Your task to perform on an android device: Go to CNN.com Image 0: 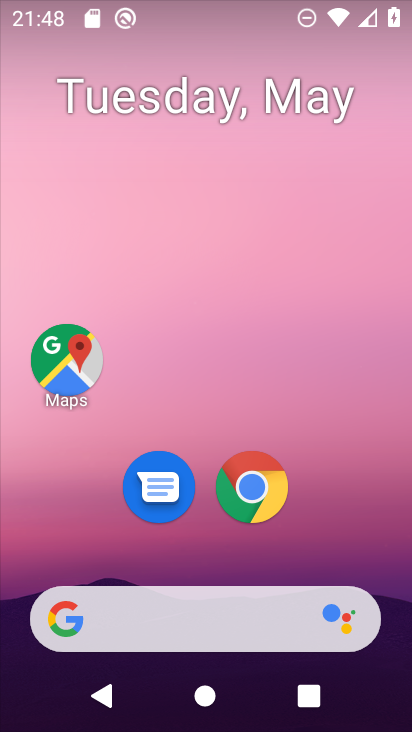
Step 0: press home button
Your task to perform on an android device: Go to CNN.com Image 1: 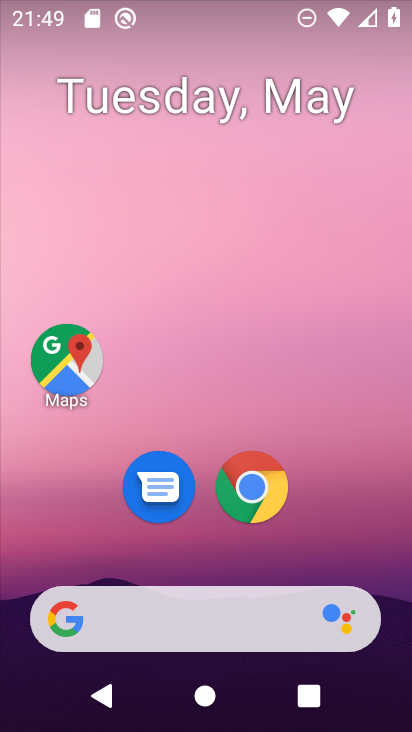
Step 1: click (245, 489)
Your task to perform on an android device: Go to CNN.com Image 2: 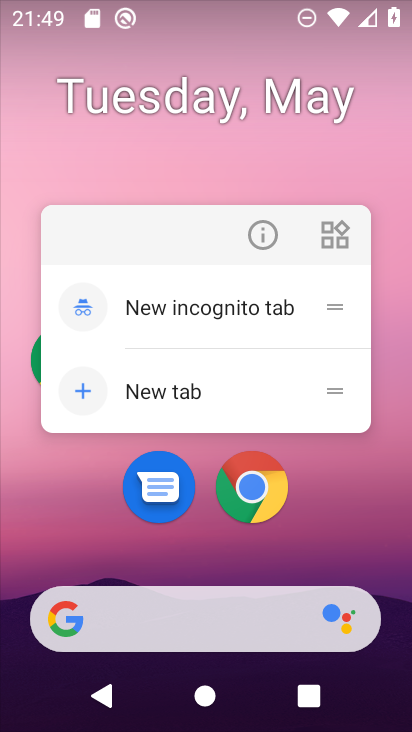
Step 2: click (265, 500)
Your task to perform on an android device: Go to CNN.com Image 3: 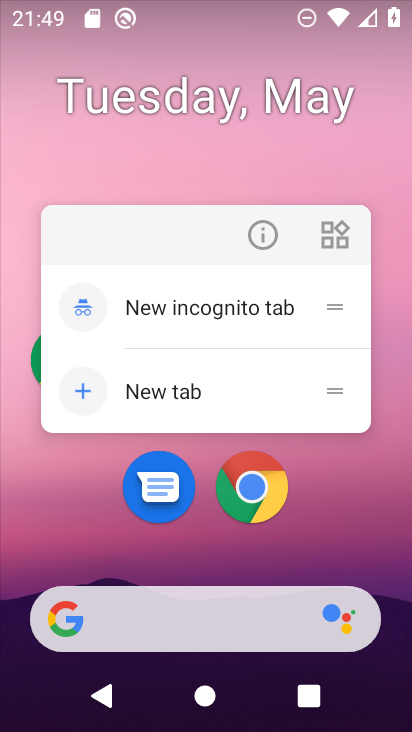
Step 3: click (252, 500)
Your task to perform on an android device: Go to CNN.com Image 4: 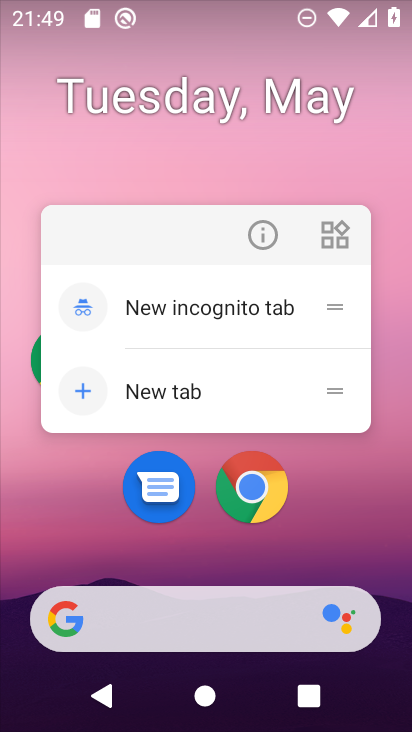
Step 4: click (254, 487)
Your task to perform on an android device: Go to CNN.com Image 5: 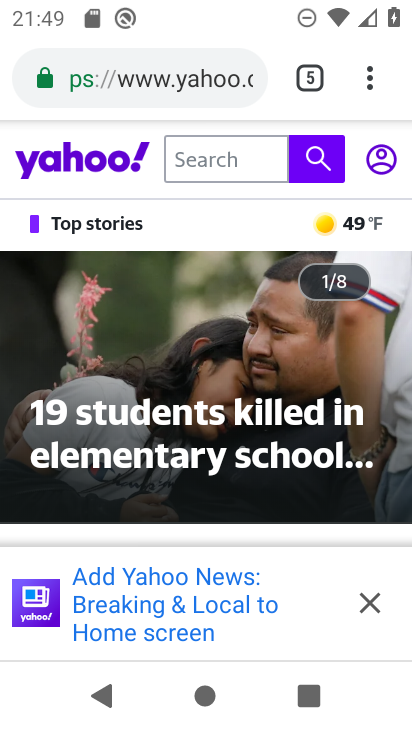
Step 5: drag from (369, 80) to (247, 163)
Your task to perform on an android device: Go to CNN.com Image 6: 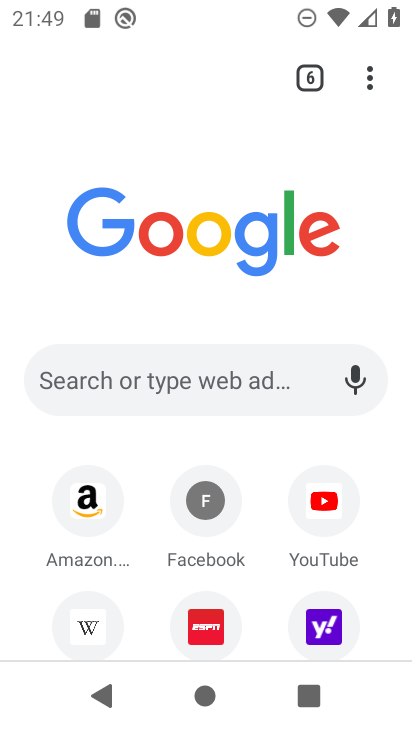
Step 6: drag from (283, 517) to (325, 249)
Your task to perform on an android device: Go to CNN.com Image 7: 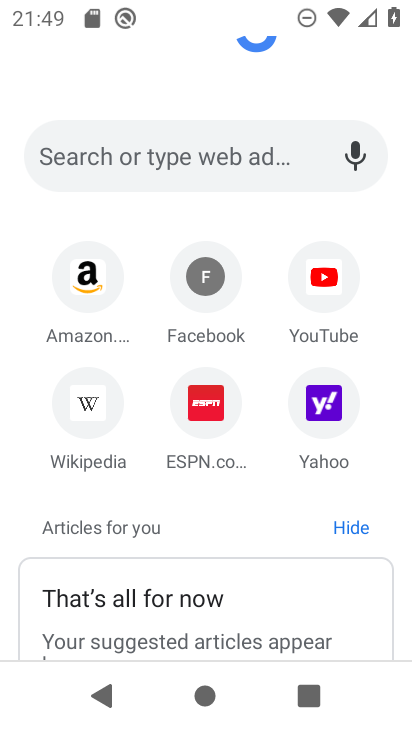
Step 7: drag from (245, 232) to (231, 472)
Your task to perform on an android device: Go to CNN.com Image 8: 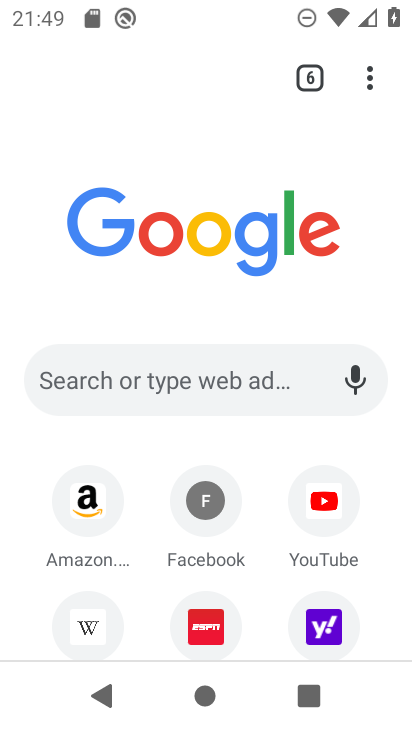
Step 8: click (104, 360)
Your task to perform on an android device: Go to CNN.com Image 9: 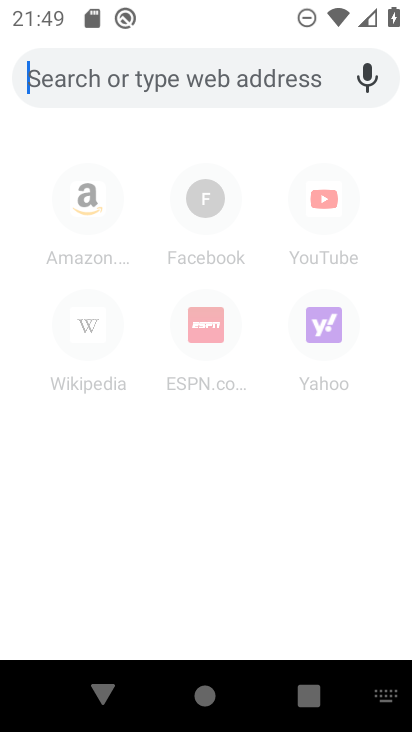
Step 9: type "cnn.com"
Your task to perform on an android device: Go to CNN.com Image 10: 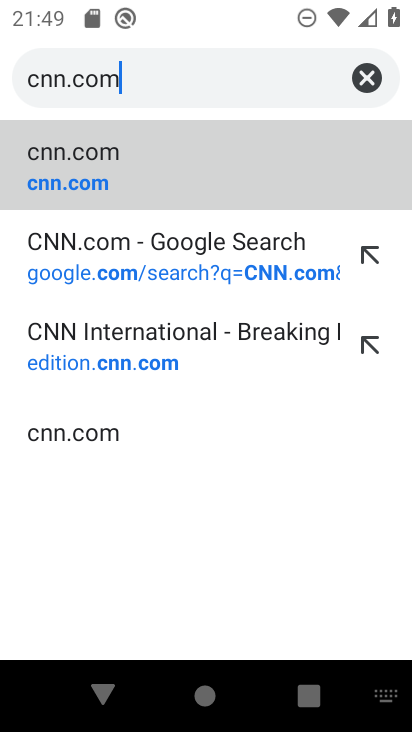
Step 10: click (109, 170)
Your task to perform on an android device: Go to CNN.com Image 11: 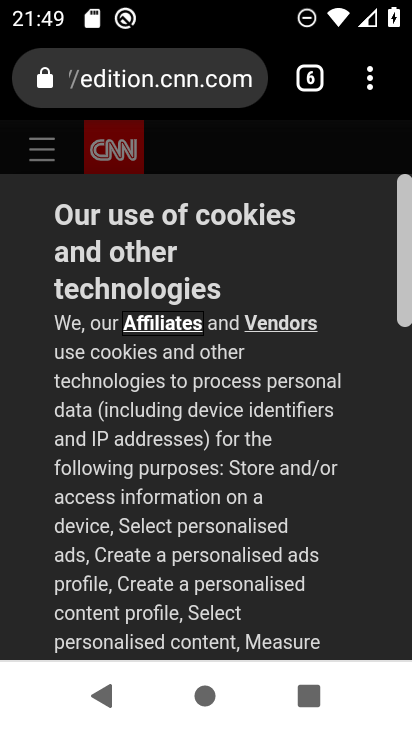
Step 11: drag from (147, 608) to (359, 138)
Your task to perform on an android device: Go to CNN.com Image 12: 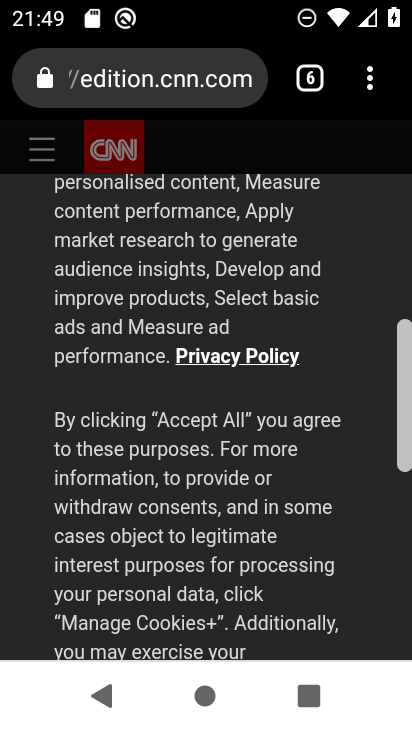
Step 12: drag from (178, 589) to (410, 140)
Your task to perform on an android device: Go to CNN.com Image 13: 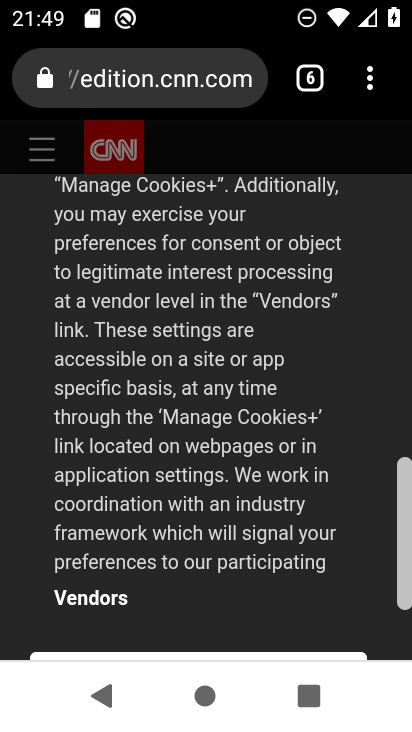
Step 13: drag from (226, 587) to (346, 230)
Your task to perform on an android device: Go to CNN.com Image 14: 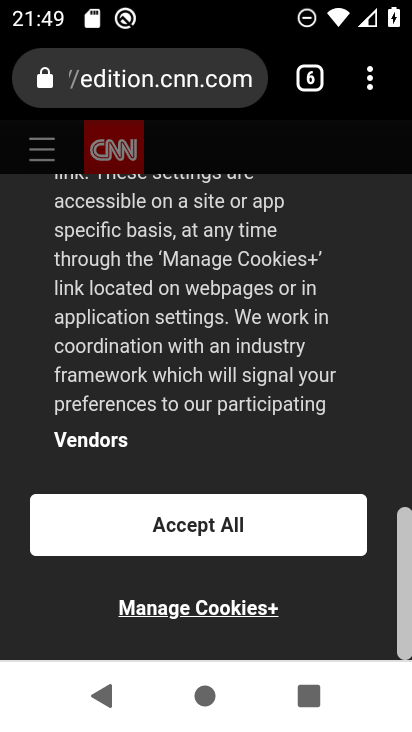
Step 14: click (225, 533)
Your task to perform on an android device: Go to CNN.com Image 15: 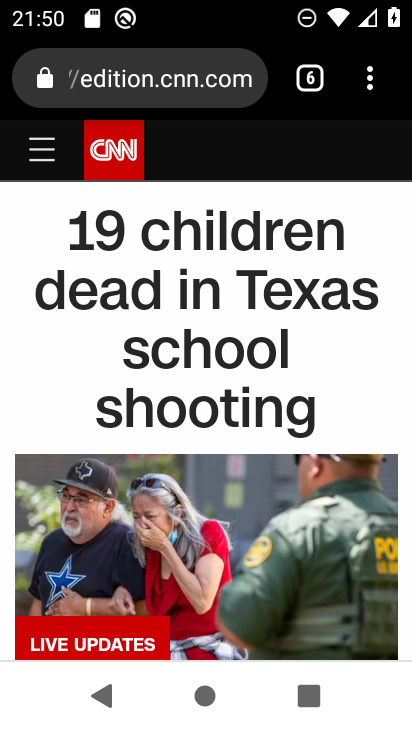
Step 15: task complete